Your task to perform on an android device: uninstall "Microsoft Outlook" Image 0: 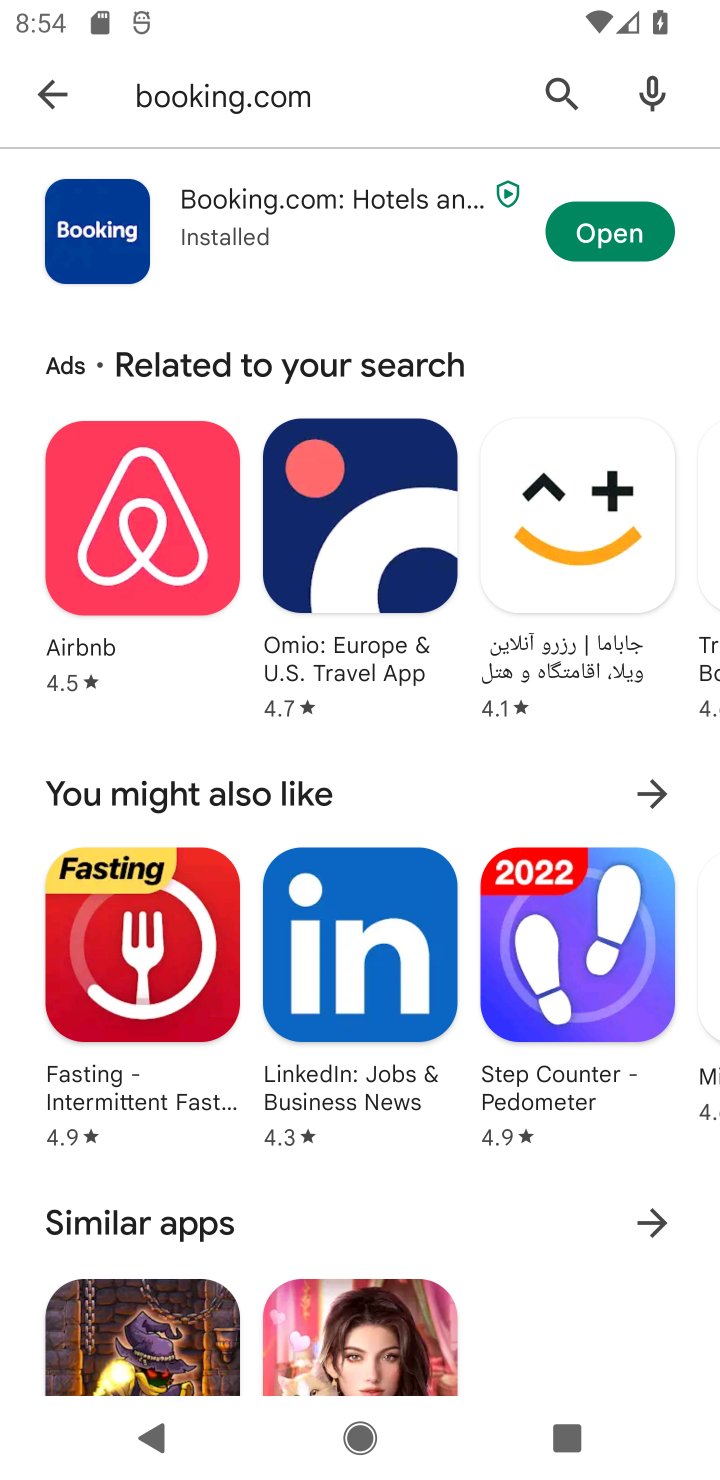
Step 0: press home button
Your task to perform on an android device: uninstall "Microsoft Outlook" Image 1: 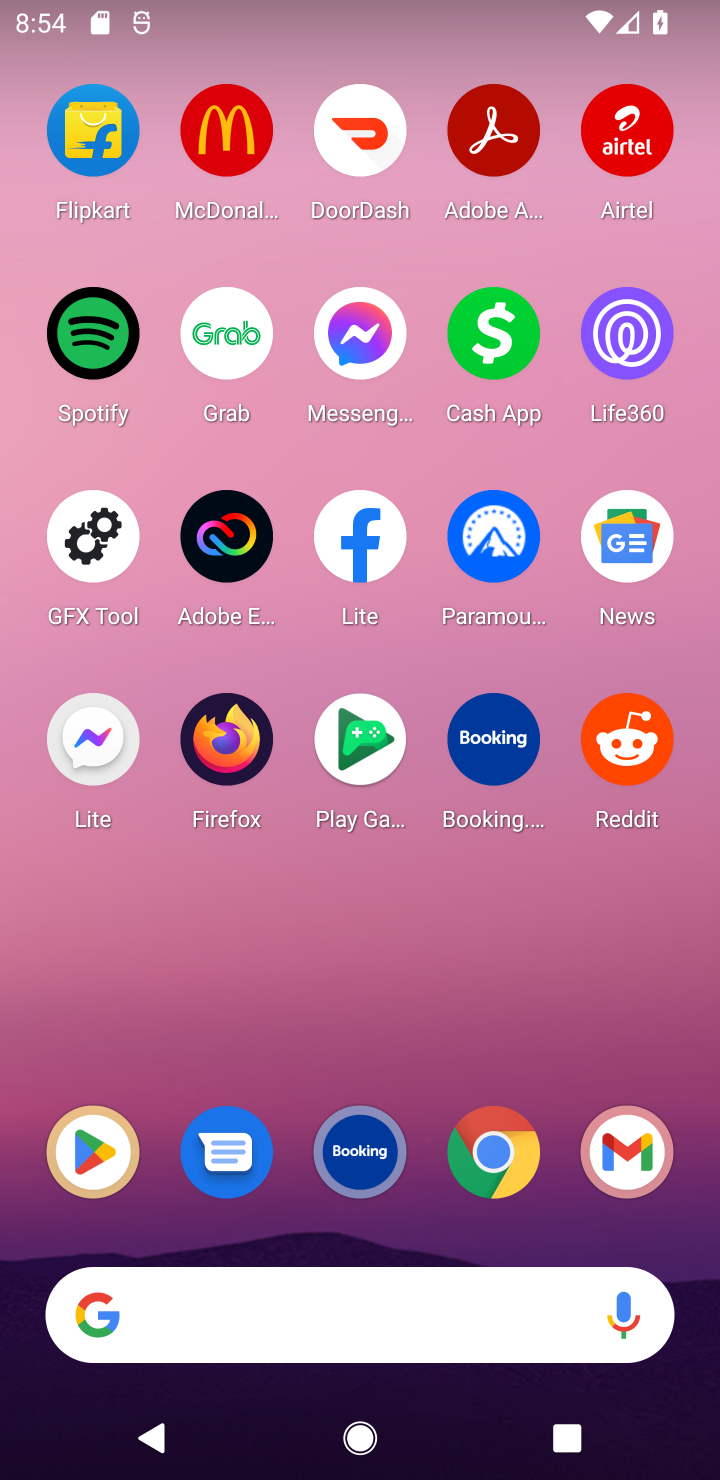
Step 1: click (88, 1180)
Your task to perform on an android device: uninstall "Microsoft Outlook" Image 2: 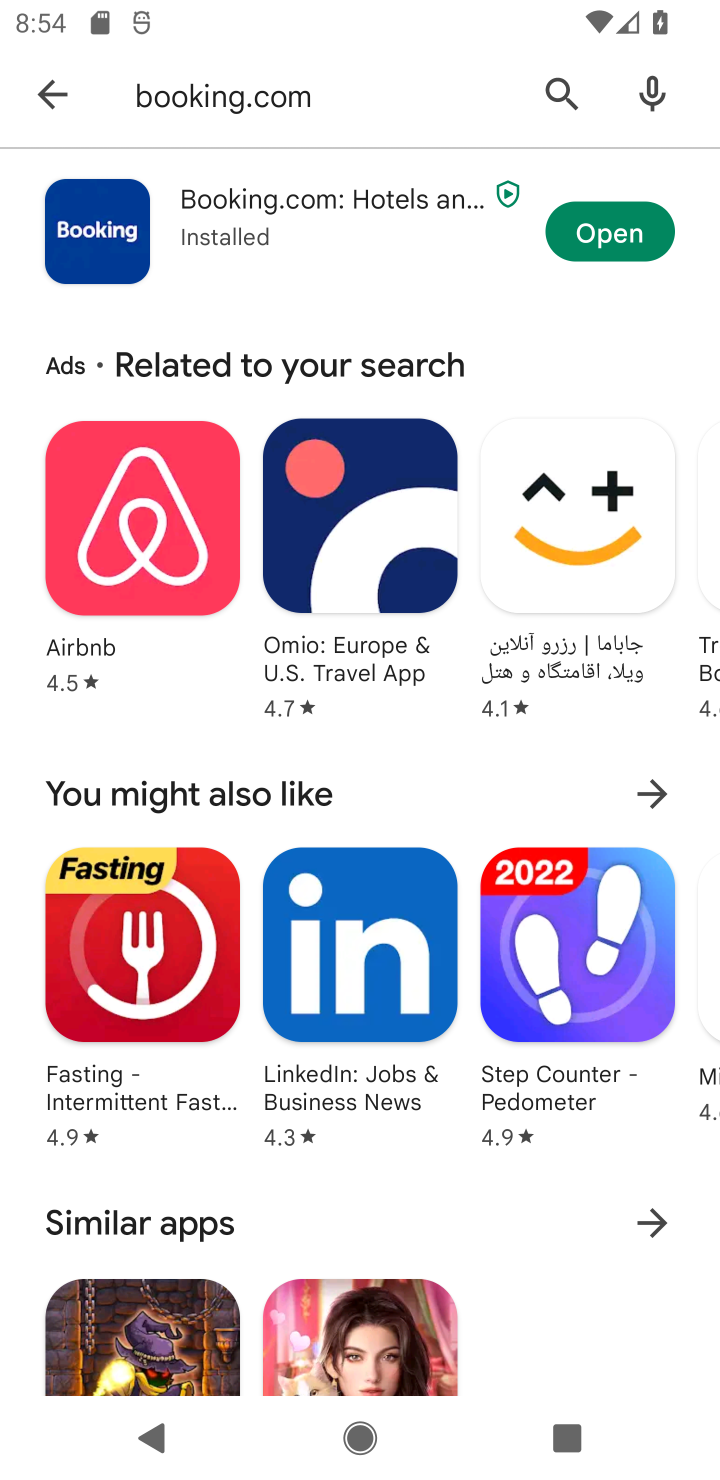
Step 2: click (53, 101)
Your task to perform on an android device: uninstall "Microsoft Outlook" Image 3: 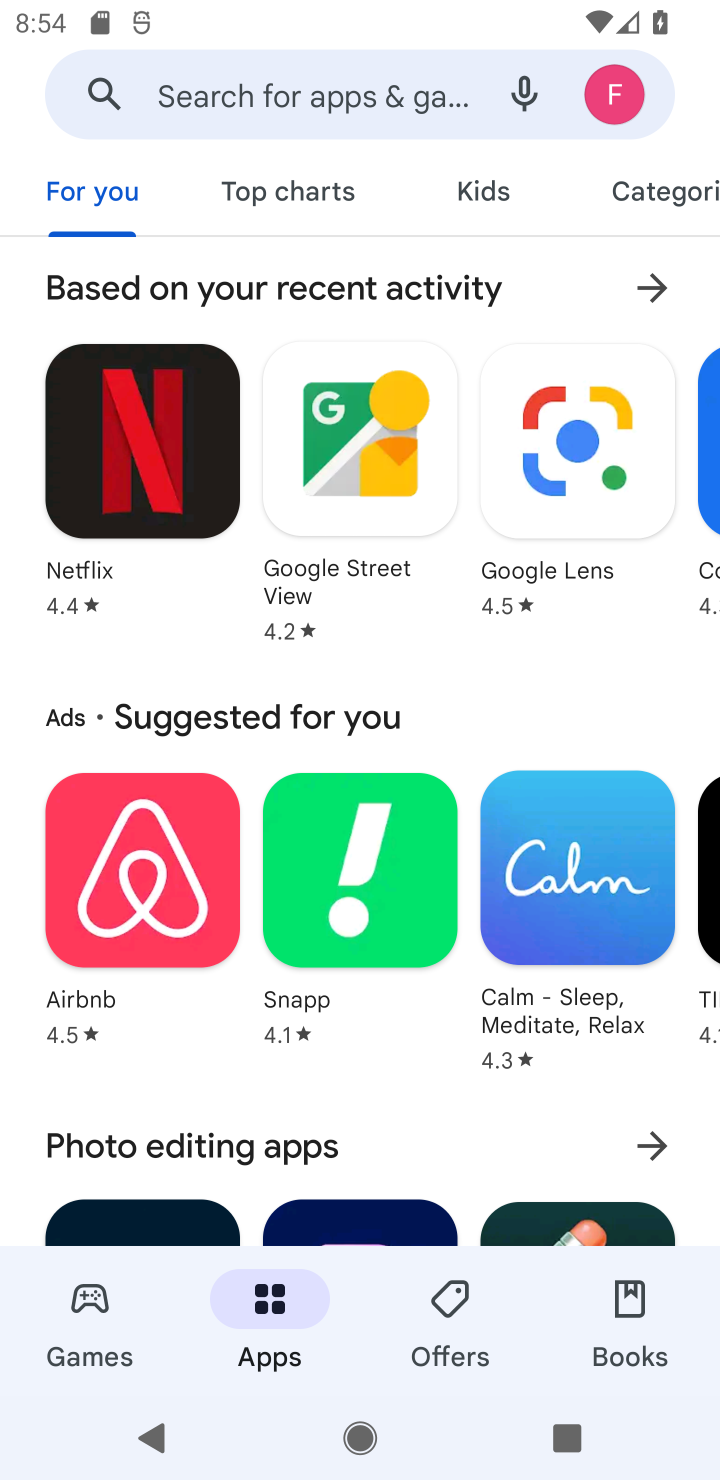
Step 3: click (332, 101)
Your task to perform on an android device: uninstall "Microsoft Outlook" Image 4: 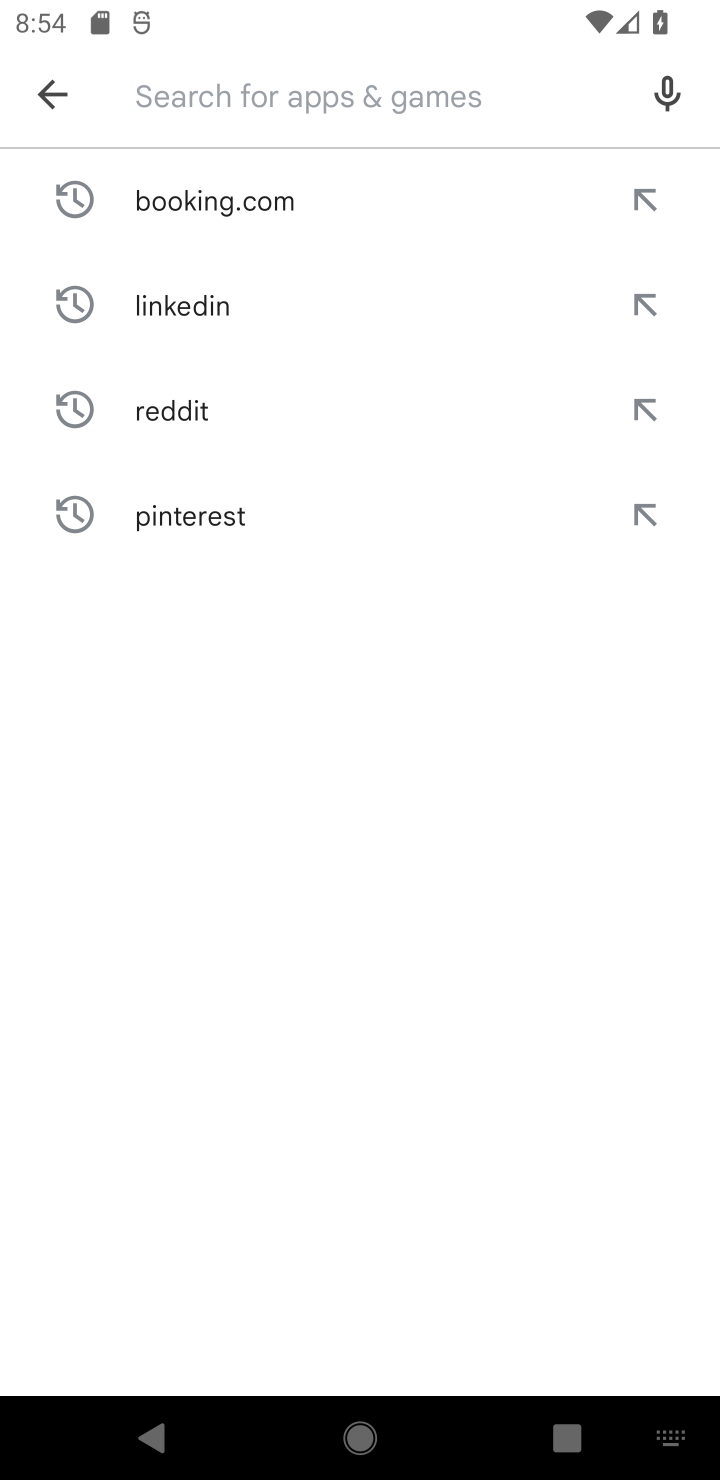
Step 4: type "Microsoft Outlook"
Your task to perform on an android device: uninstall "Microsoft Outlook" Image 5: 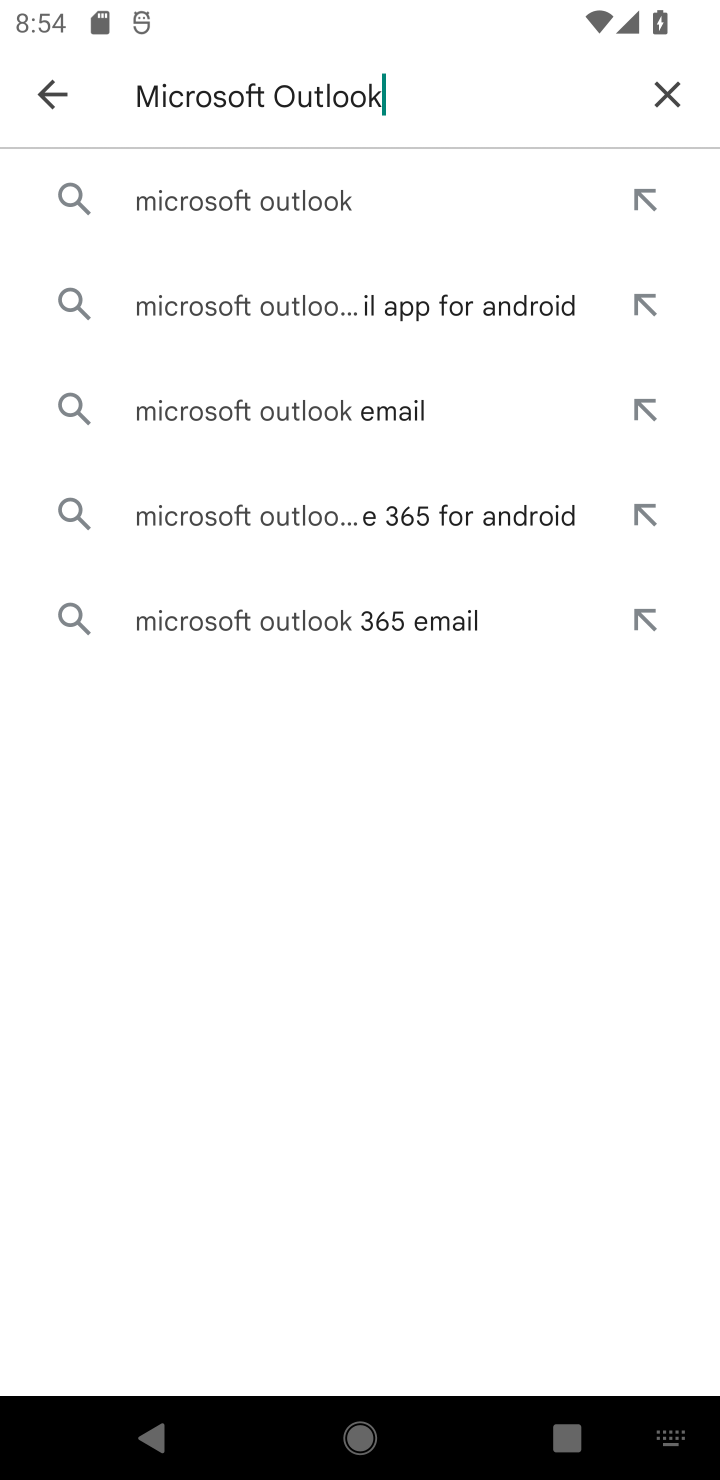
Step 5: click (345, 208)
Your task to perform on an android device: uninstall "Microsoft Outlook" Image 6: 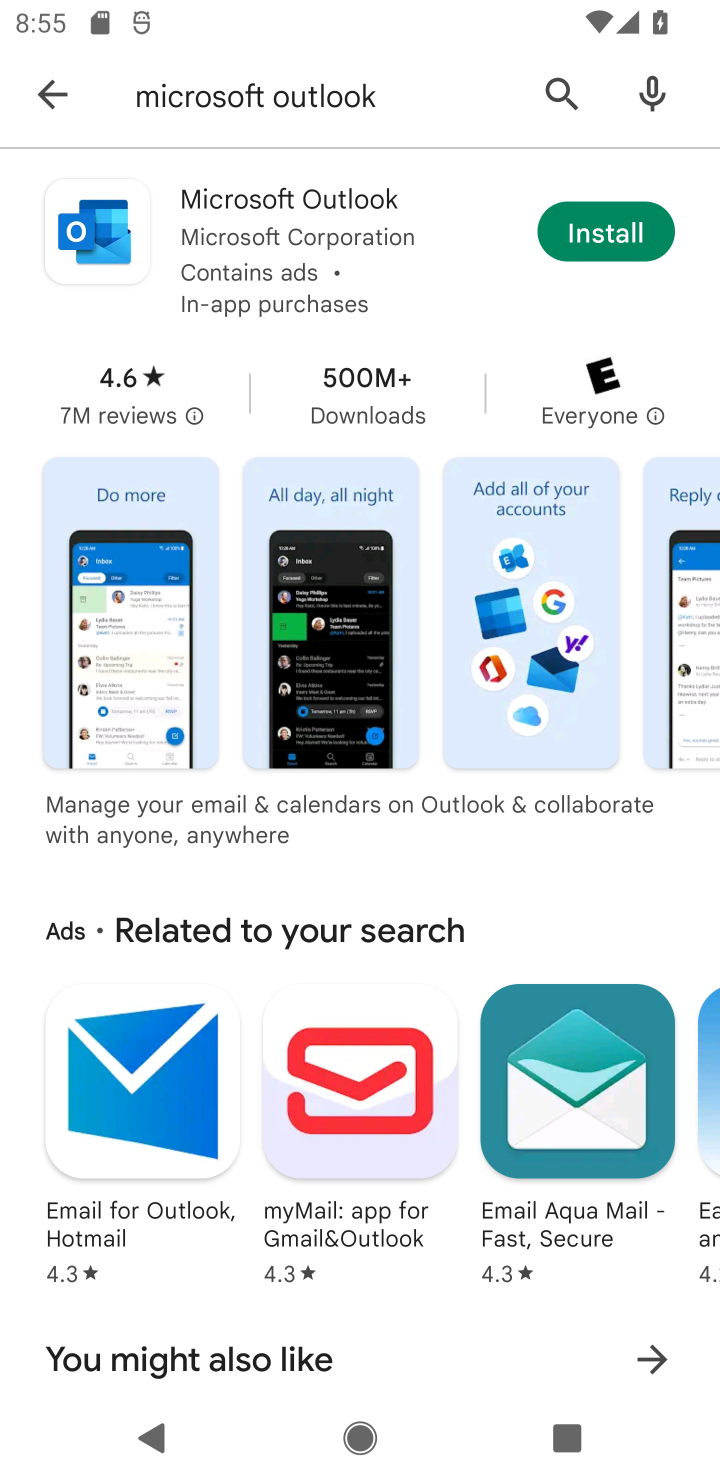
Step 6: task complete